Your task to perform on an android device: Open privacy settings Image 0: 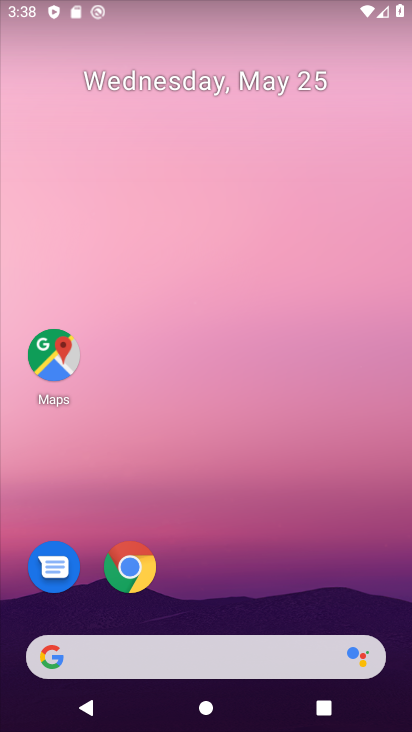
Step 0: click (137, 570)
Your task to perform on an android device: Open privacy settings Image 1: 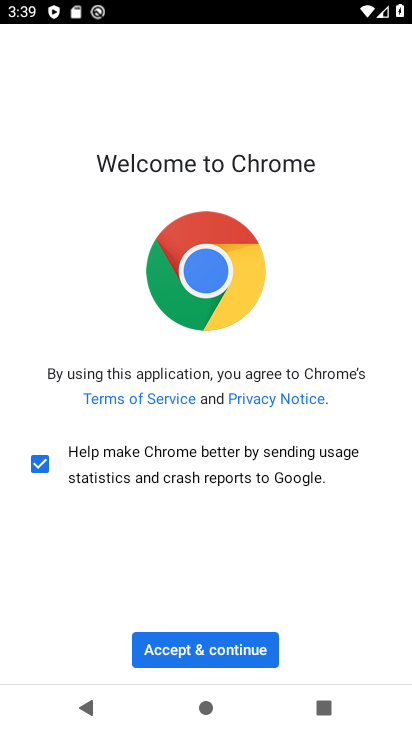
Step 1: click (260, 663)
Your task to perform on an android device: Open privacy settings Image 2: 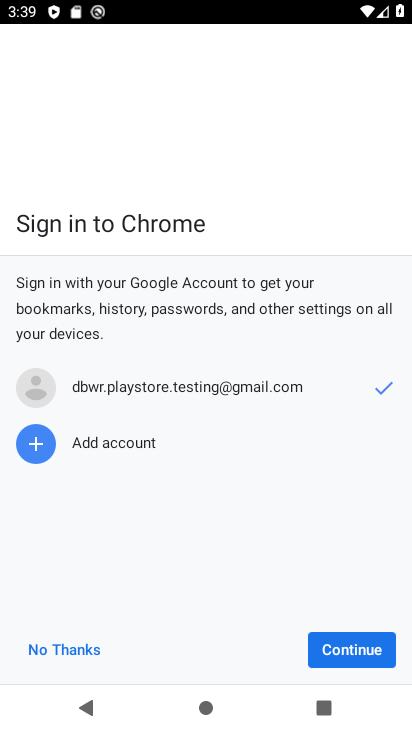
Step 2: click (329, 662)
Your task to perform on an android device: Open privacy settings Image 3: 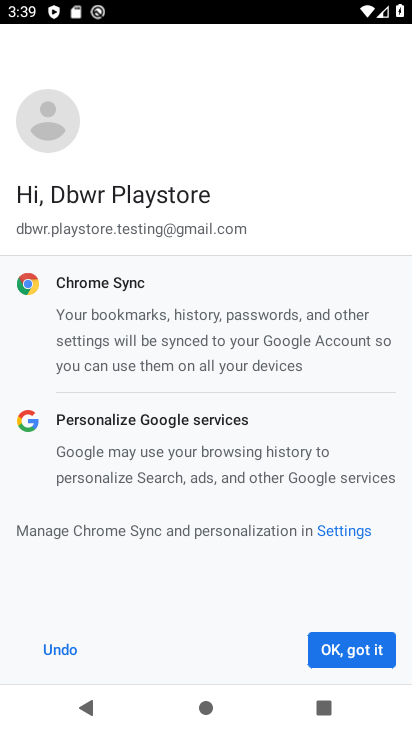
Step 3: click (331, 662)
Your task to perform on an android device: Open privacy settings Image 4: 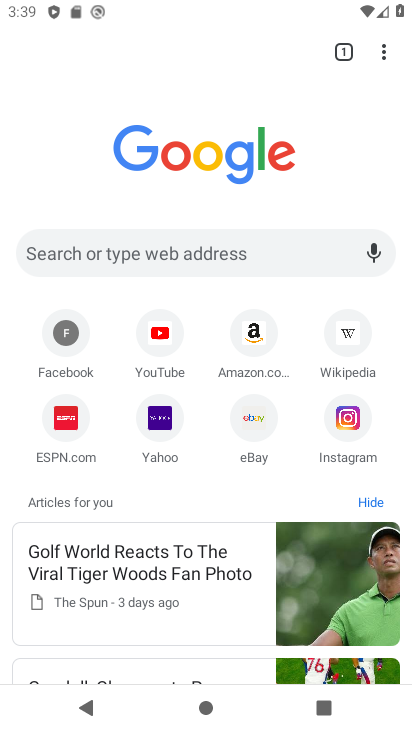
Step 4: drag from (386, 70) to (313, 449)
Your task to perform on an android device: Open privacy settings Image 5: 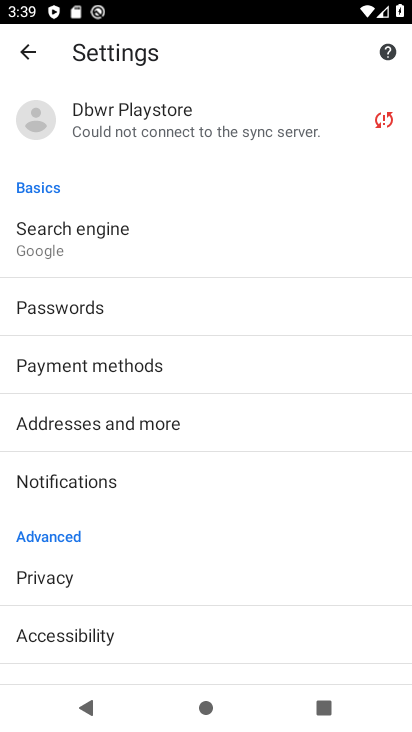
Step 5: click (122, 588)
Your task to perform on an android device: Open privacy settings Image 6: 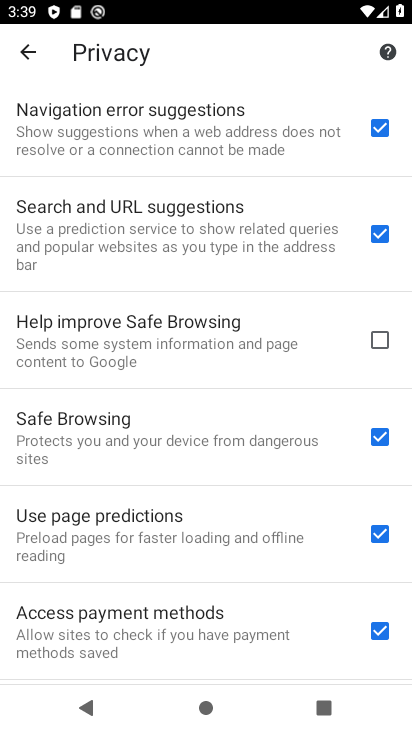
Step 6: task complete